Your task to perform on an android device: remove spam from my inbox in the gmail app Image 0: 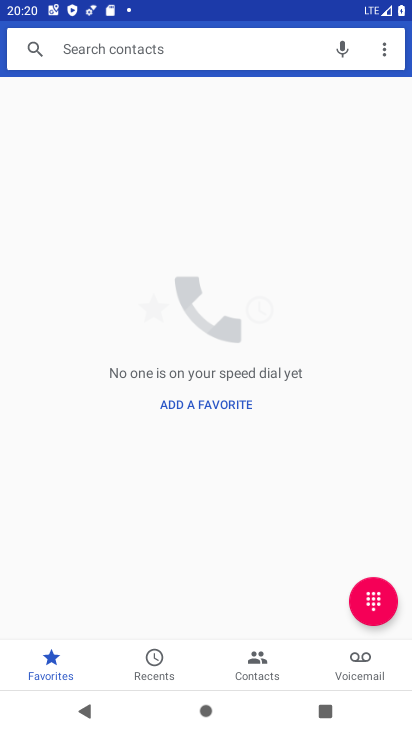
Step 0: press home button
Your task to perform on an android device: remove spam from my inbox in the gmail app Image 1: 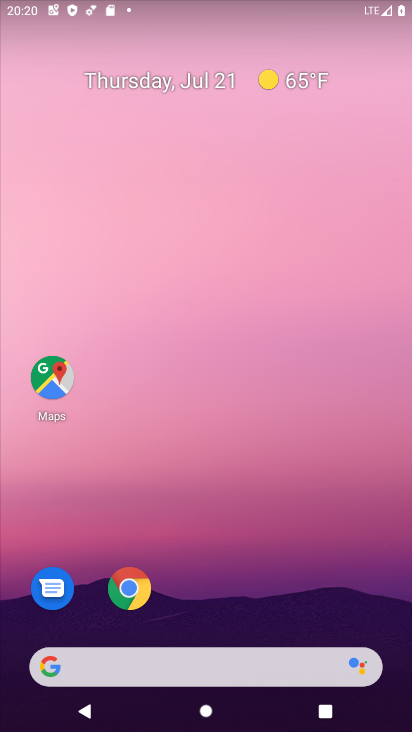
Step 1: drag from (227, 640) to (151, 58)
Your task to perform on an android device: remove spam from my inbox in the gmail app Image 2: 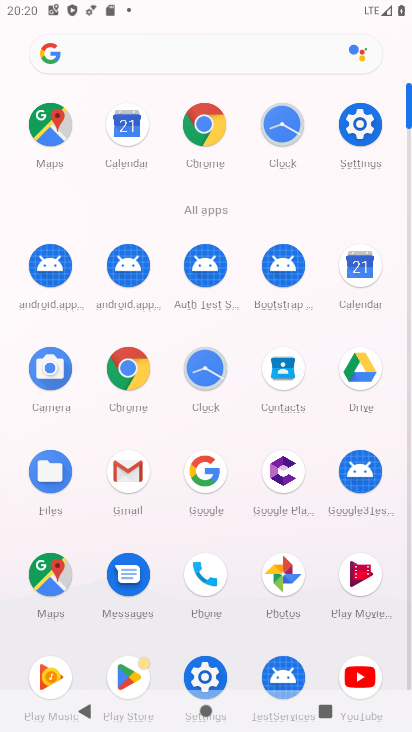
Step 2: click (128, 473)
Your task to perform on an android device: remove spam from my inbox in the gmail app Image 3: 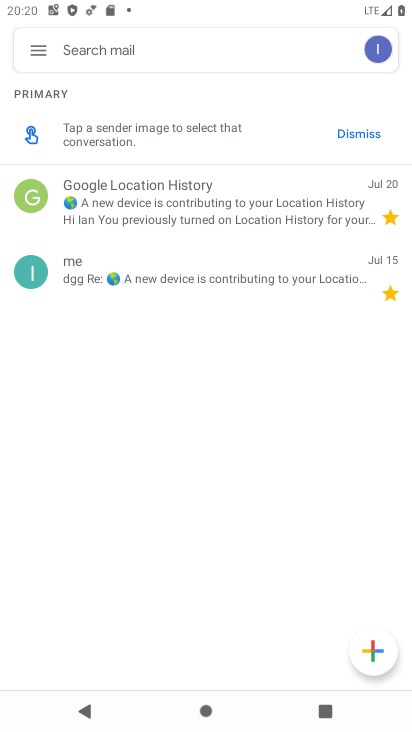
Step 3: drag from (92, 200) to (106, 454)
Your task to perform on an android device: remove spam from my inbox in the gmail app Image 4: 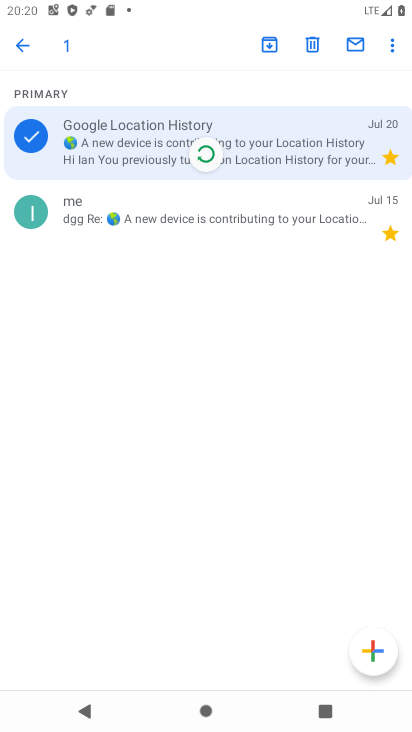
Step 4: click (106, 453)
Your task to perform on an android device: remove spam from my inbox in the gmail app Image 5: 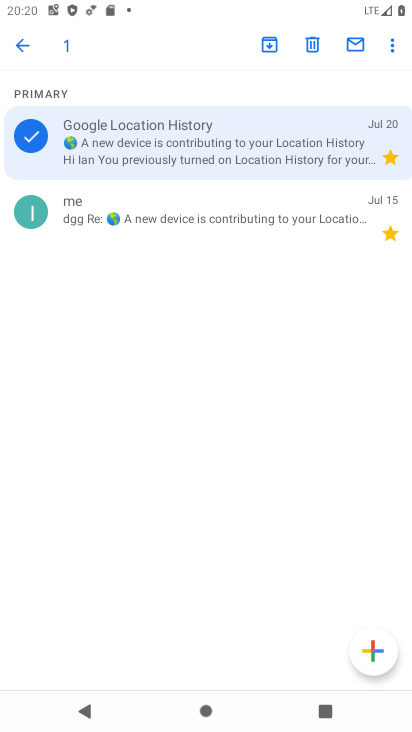
Step 5: click (25, 36)
Your task to perform on an android device: remove spam from my inbox in the gmail app Image 6: 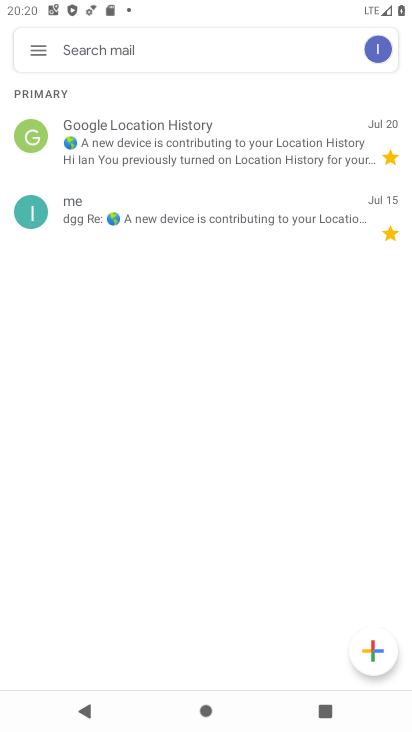
Step 6: click (26, 46)
Your task to perform on an android device: remove spam from my inbox in the gmail app Image 7: 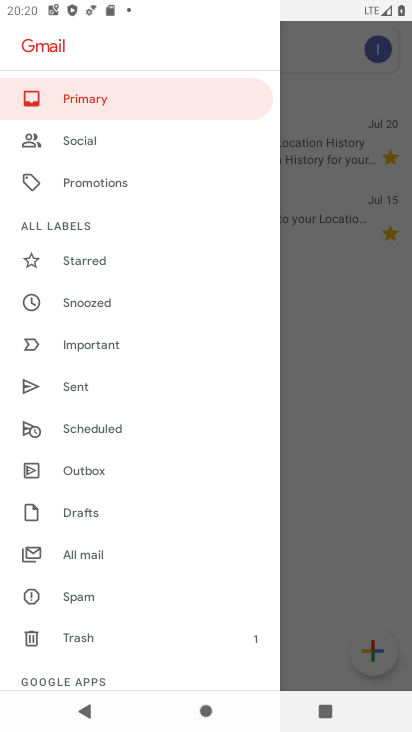
Step 7: click (89, 600)
Your task to perform on an android device: remove spam from my inbox in the gmail app Image 8: 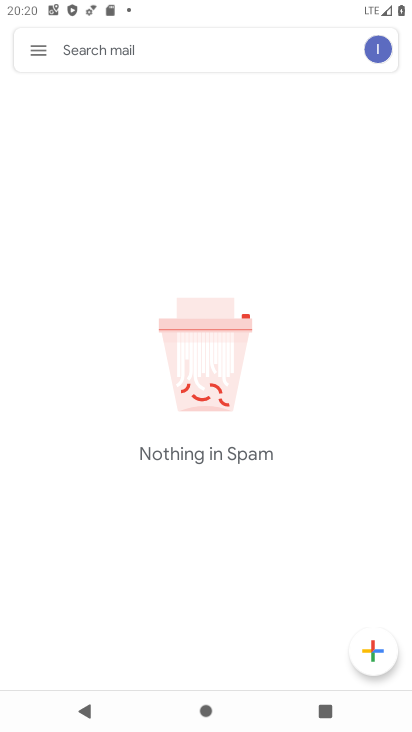
Step 8: task complete